Your task to perform on an android device: Go to sound settings Image 0: 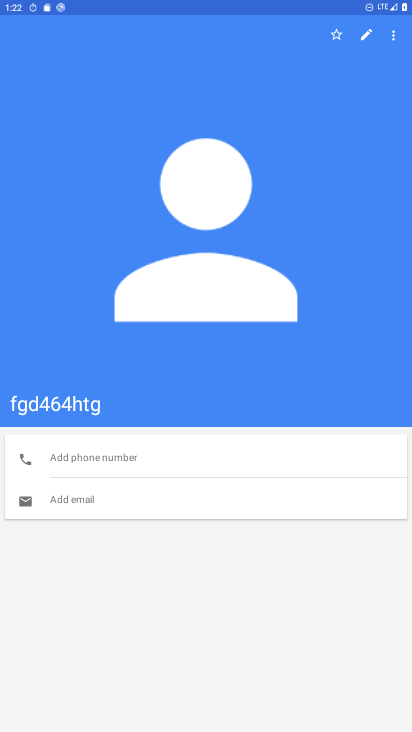
Step 0: press home button
Your task to perform on an android device: Go to sound settings Image 1: 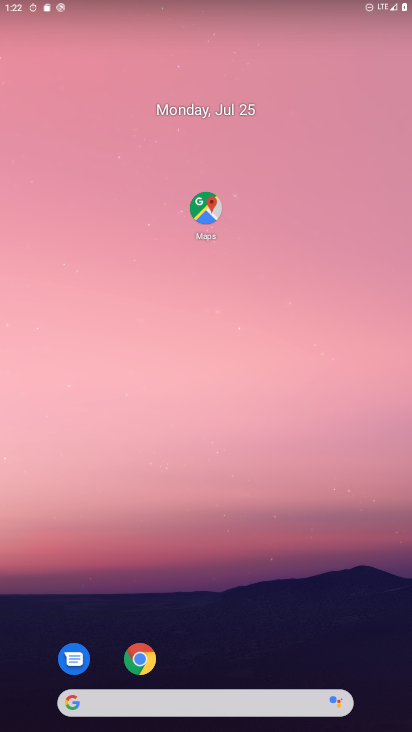
Step 1: drag from (20, 666) to (252, 216)
Your task to perform on an android device: Go to sound settings Image 2: 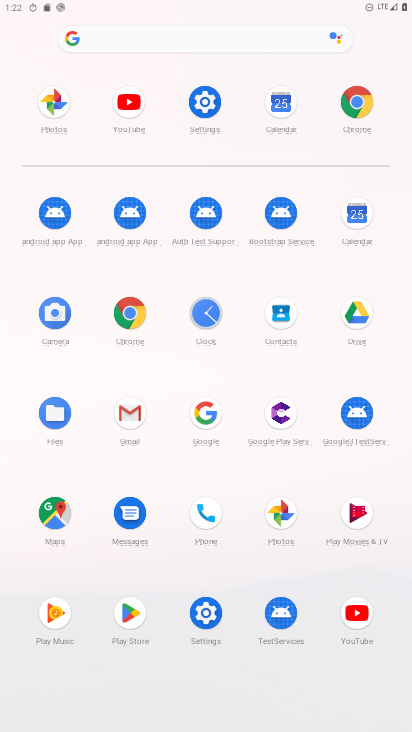
Step 2: click (212, 620)
Your task to perform on an android device: Go to sound settings Image 3: 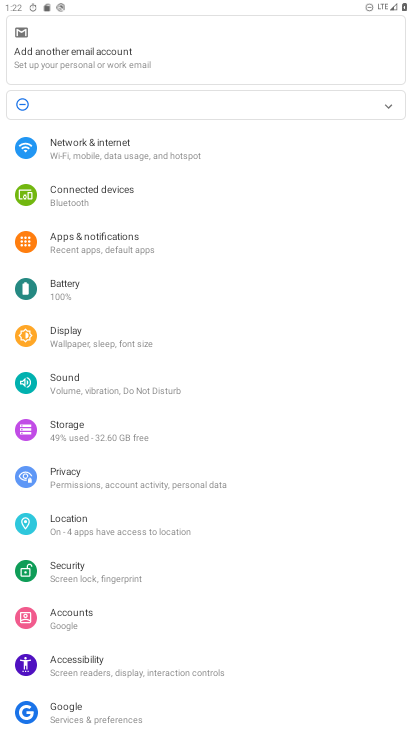
Step 3: click (67, 674)
Your task to perform on an android device: Go to sound settings Image 4: 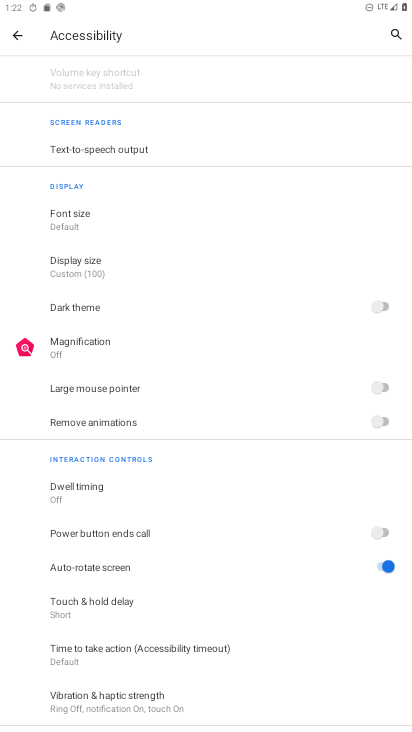
Step 4: click (10, 32)
Your task to perform on an android device: Go to sound settings Image 5: 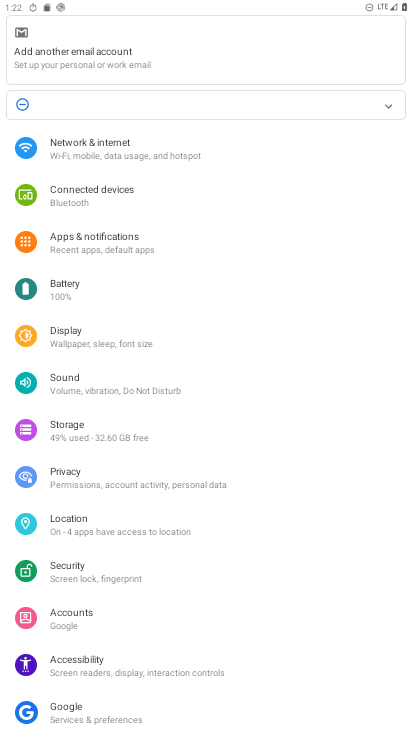
Step 5: click (77, 371)
Your task to perform on an android device: Go to sound settings Image 6: 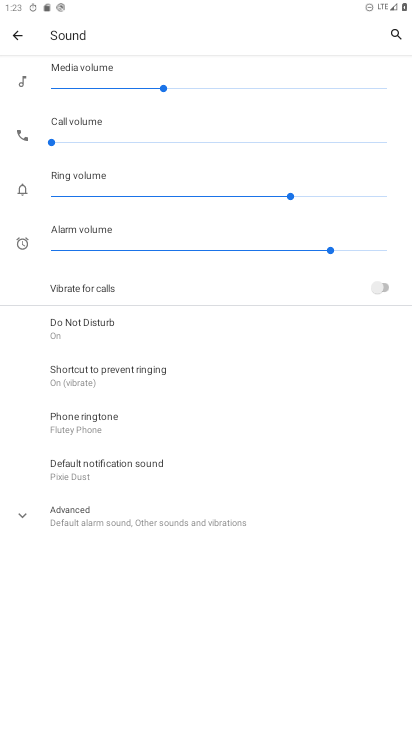
Step 6: task complete